Your task to perform on an android device: Search for vegetarian restaurants on Maps Image 0: 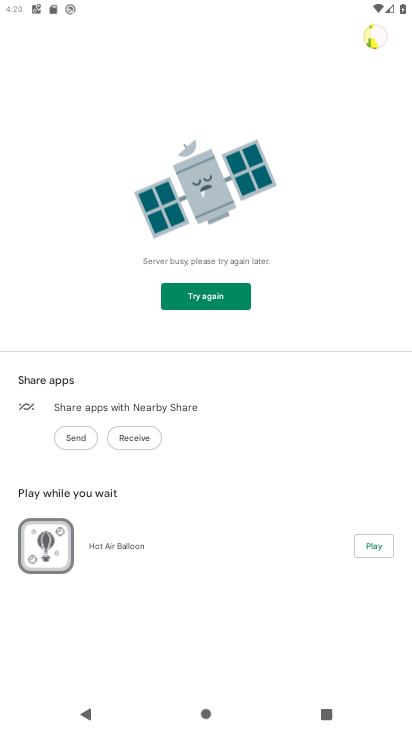
Step 0: press home button
Your task to perform on an android device: Search for vegetarian restaurants on Maps Image 1: 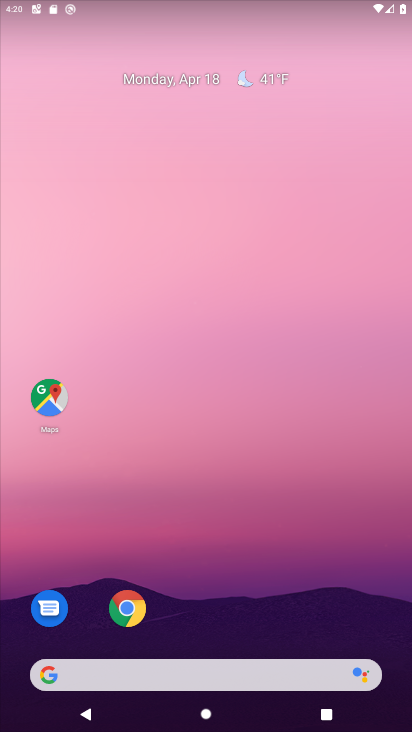
Step 1: click (44, 399)
Your task to perform on an android device: Search for vegetarian restaurants on Maps Image 2: 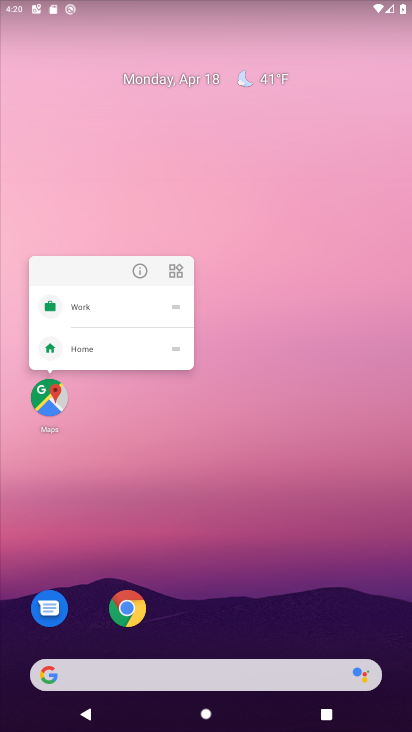
Step 2: click (44, 399)
Your task to perform on an android device: Search for vegetarian restaurants on Maps Image 3: 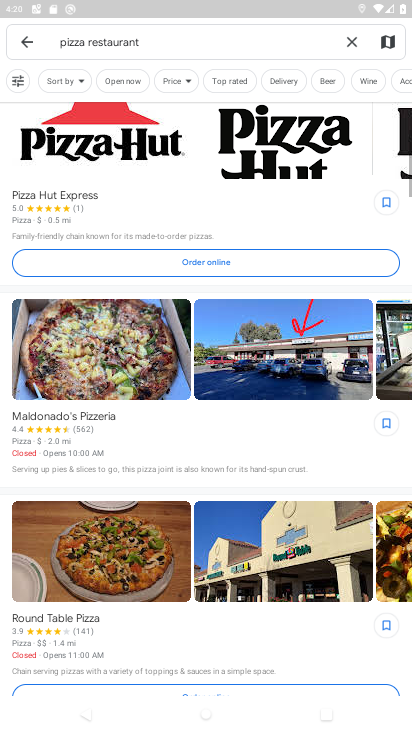
Step 3: click (350, 40)
Your task to perform on an android device: Search for vegetarian restaurants on Maps Image 4: 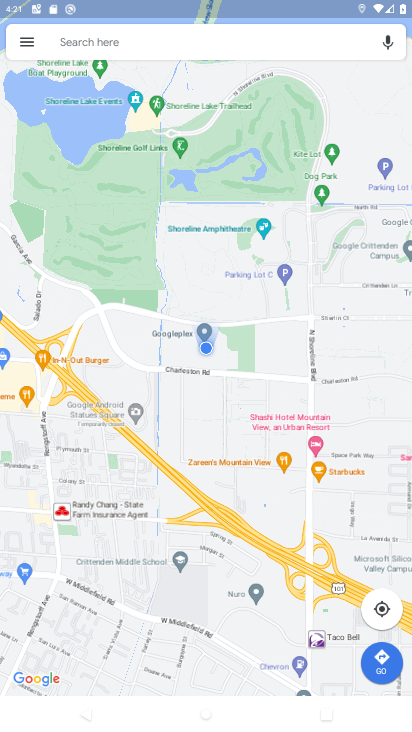
Step 4: click (103, 45)
Your task to perform on an android device: Search for vegetarian restaurants on Maps Image 5: 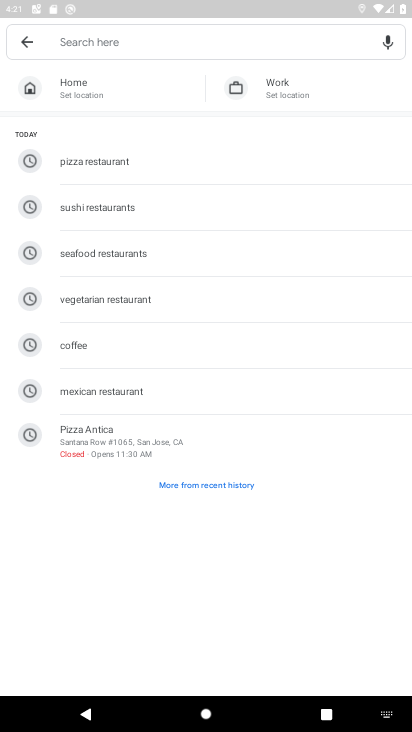
Step 5: click (132, 303)
Your task to perform on an android device: Search for vegetarian restaurants on Maps Image 6: 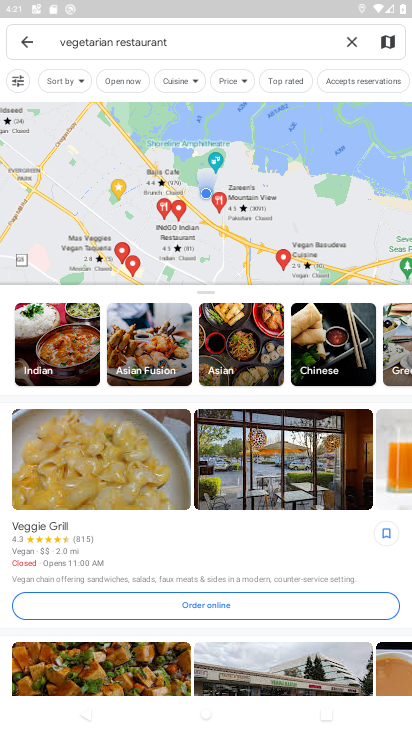
Step 6: task complete